Your task to perform on an android device: refresh tabs in the chrome app Image 0: 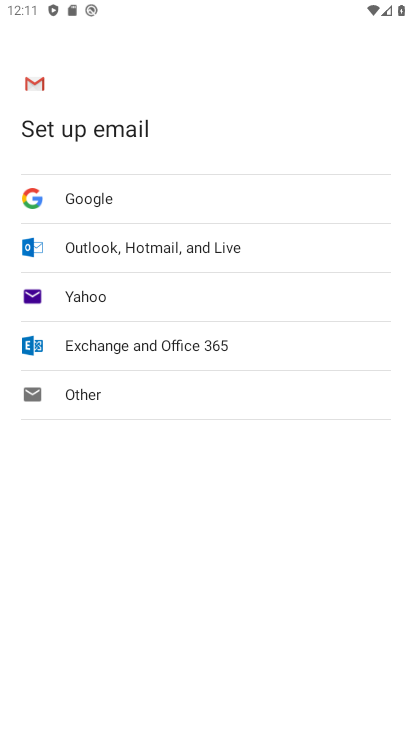
Step 0: press home button
Your task to perform on an android device: refresh tabs in the chrome app Image 1: 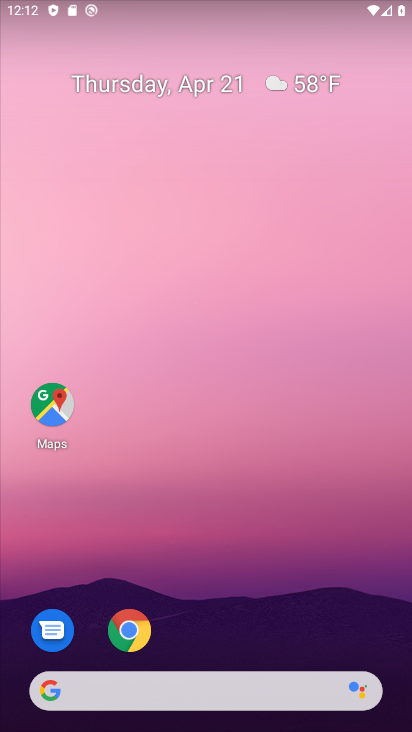
Step 1: drag from (252, 681) to (337, 75)
Your task to perform on an android device: refresh tabs in the chrome app Image 2: 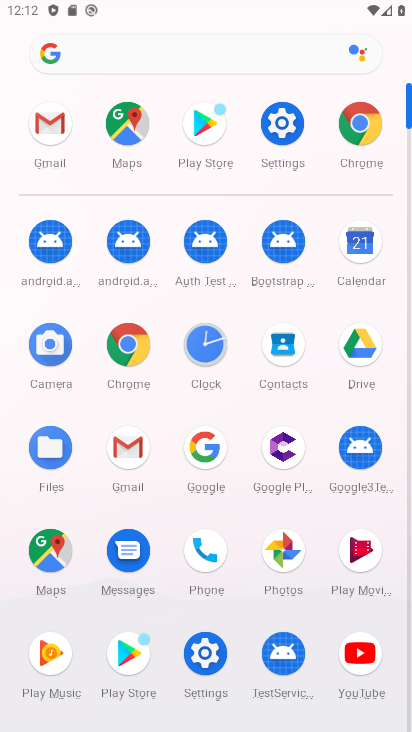
Step 2: click (366, 126)
Your task to perform on an android device: refresh tabs in the chrome app Image 3: 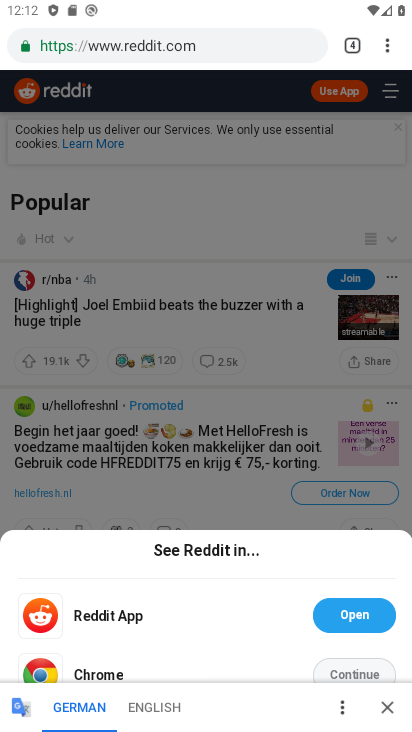
Step 3: click (383, 57)
Your task to perform on an android device: refresh tabs in the chrome app Image 4: 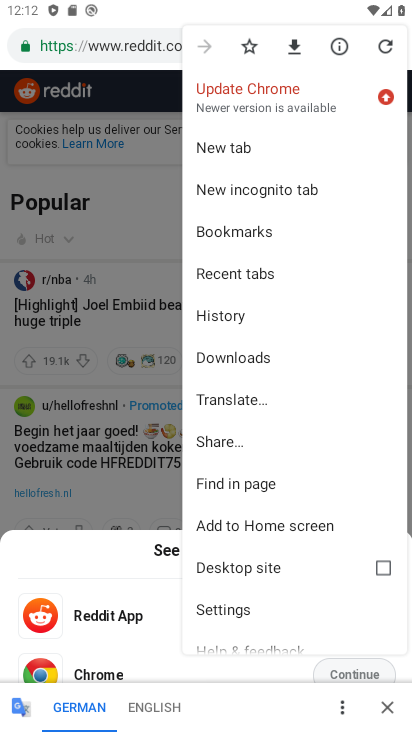
Step 4: click (382, 39)
Your task to perform on an android device: refresh tabs in the chrome app Image 5: 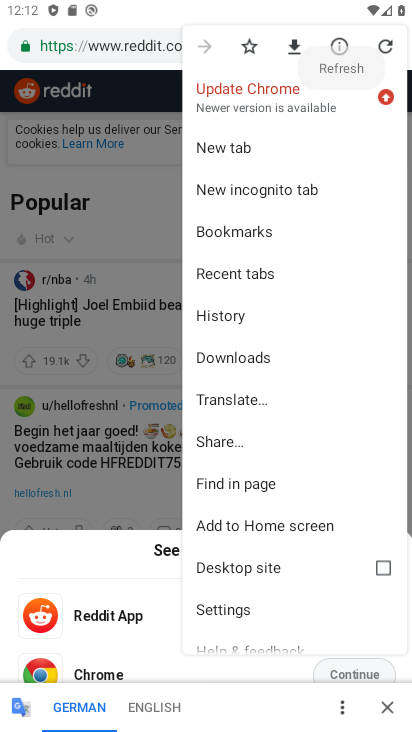
Step 5: click (388, 42)
Your task to perform on an android device: refresh tabs in the chrome app Image 6: 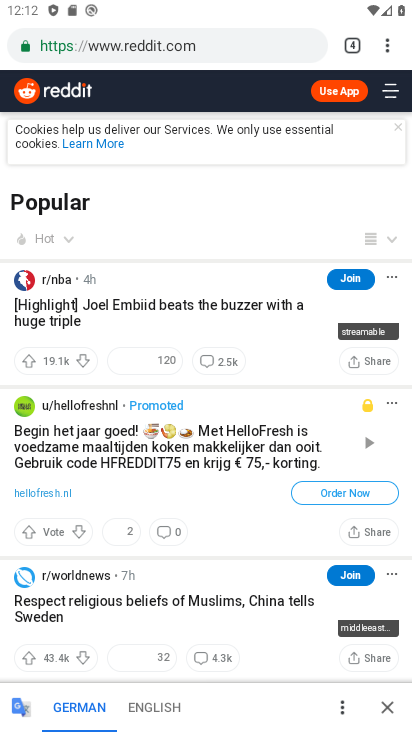
Step 6: task complete